Your task to perform on an android device: Open Google Maps Image 0: 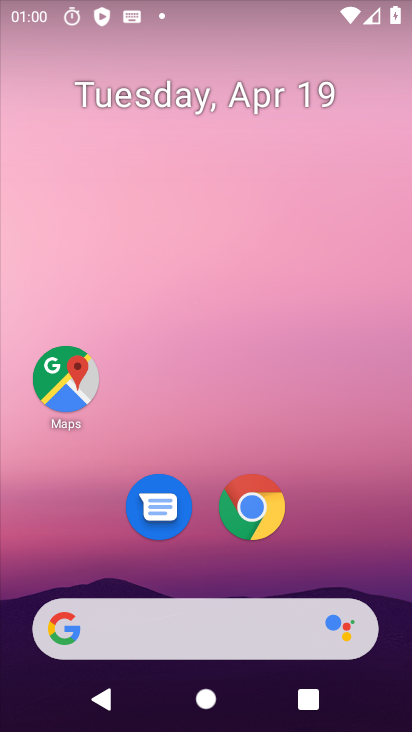
Step 0: drag from (206, 577) to (266, 24)
Your task to perform on an android device: Open Google Maps Image 1: 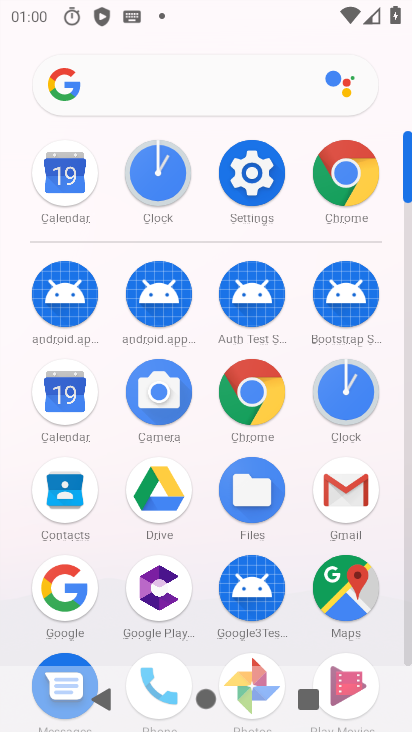
Step 1: click (346, 583)
Your task to perform on an android device: Open Google Maps Image 2: 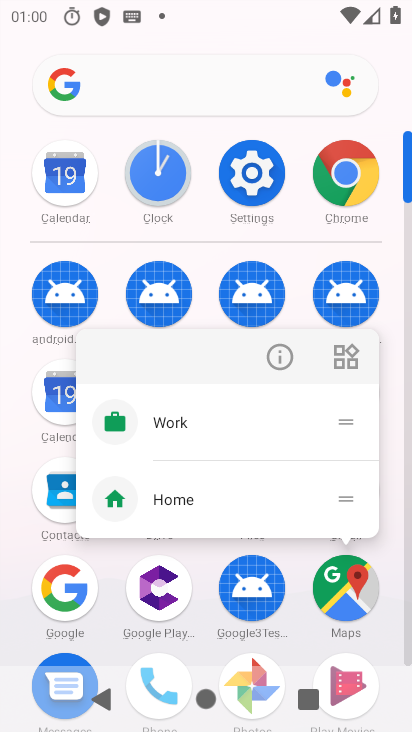
Step 2: click (346, 583)
Your task to perform on an android device: Open Google Maps Image 3: 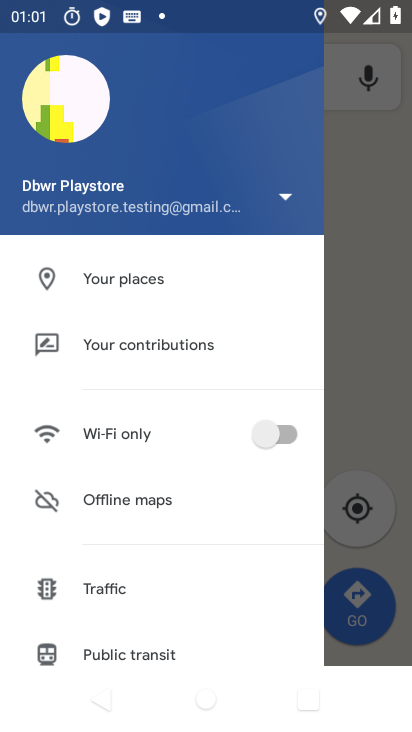
Step 3: click (368, 363)
Your task to perform on an android device: Open Google Maps Image 4: 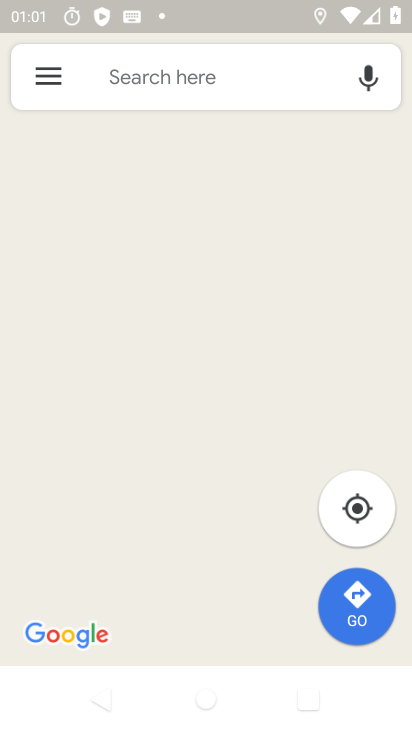
Step 4: click (36, 73)
Your task to perform on an android device: Open Google Maps Image 5: 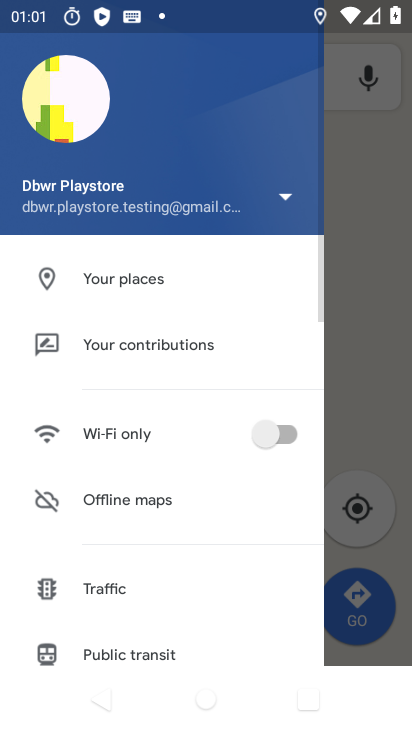
Step 5: task complete